Your task to perform on an android device: What's the weather? Image 0: 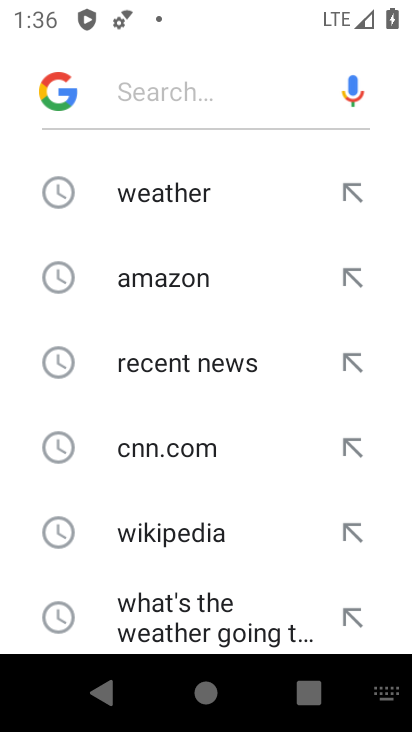
Step 0: click (163, 188)
Your task to perform on an android device: What's the weather? Image 1: 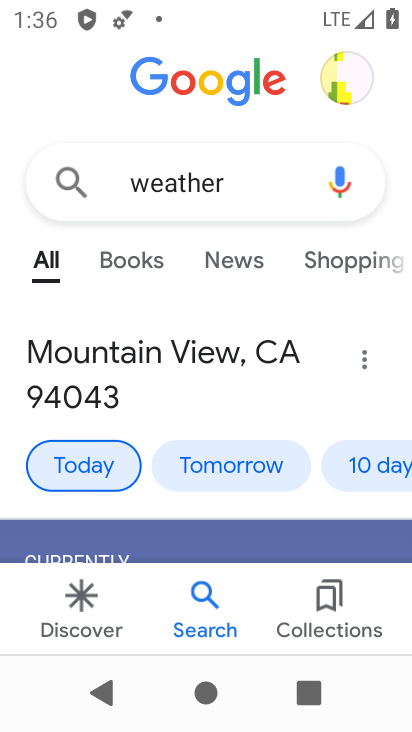
Step 1: task complete